Your task to perform on an android device: turn off javascript in the chrome app Image 0: 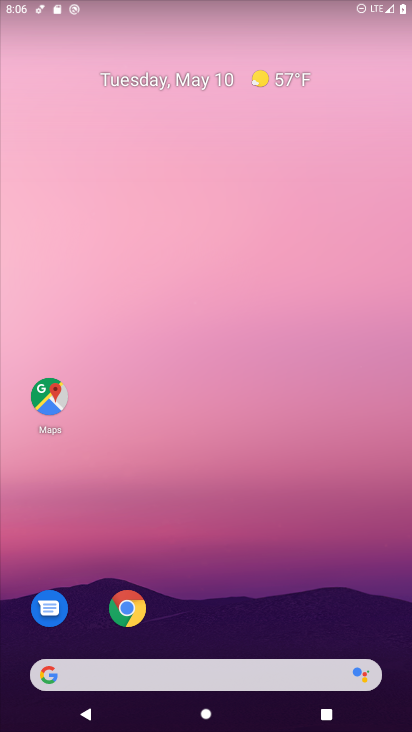
Step 0: drag from (352, 626) to (217, 33)
Your task to perform on an android device: turn off javascript in the chrome app Image 1: 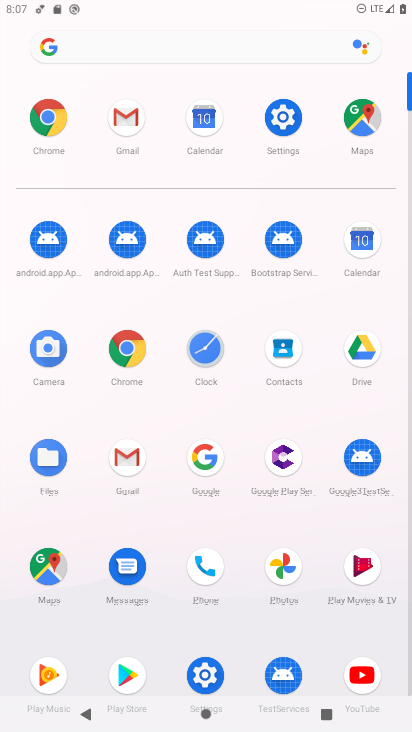
Step 1: click (117, 349)
Your task to perform on an android device: turn off javascript in the chrome app Image 2: 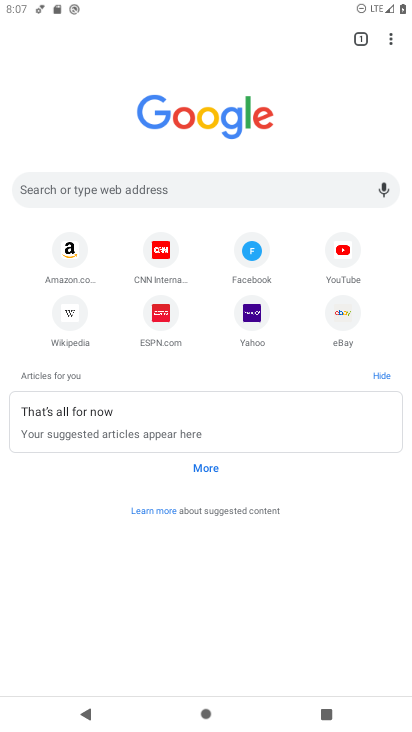
Step 2: click (391, 39)
Your task to perform on an android device: turn off javascript in the chrome app Image 3: 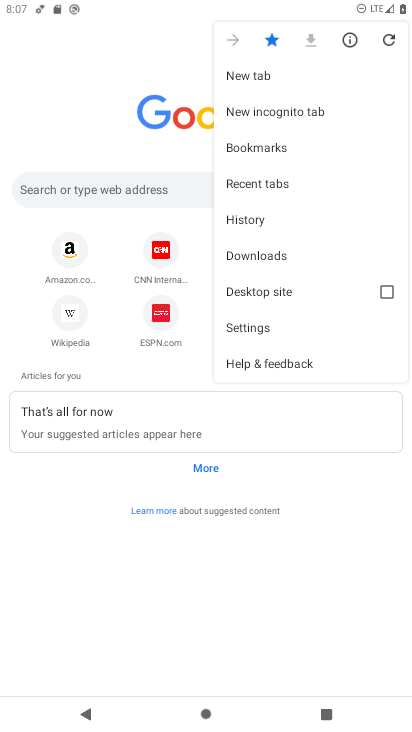
Step 3: click (277, 334)
Your task to perform on an android device: turn off javascript in the chrome app Image 4: 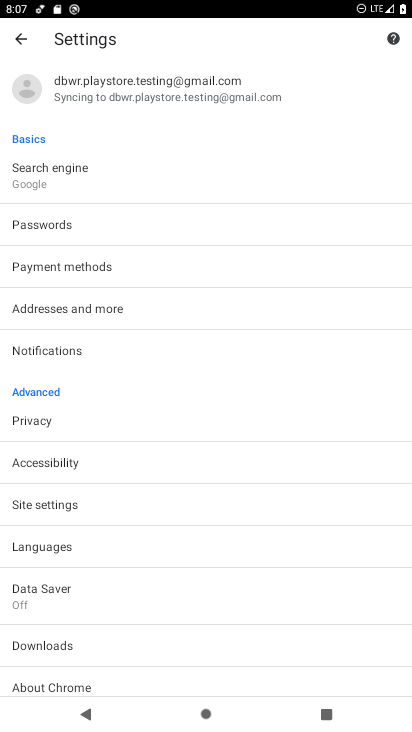
Step 4: click (69, 507)
Your task to perform on an android device: turn off javascript in the chrome app Image 5: 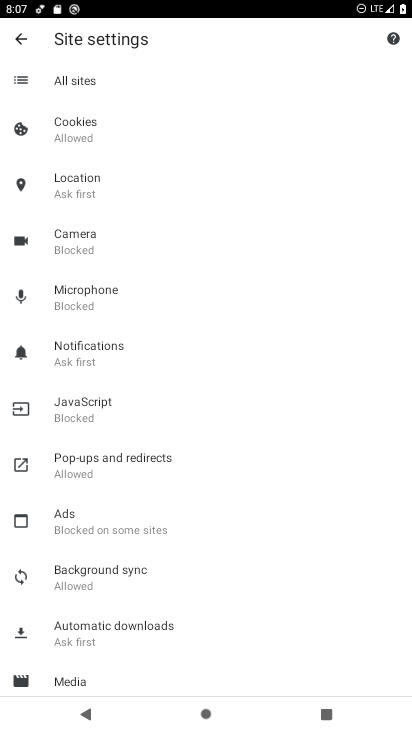
Step 5: click (110, 412)
Your task to perform on an android device: turn off javascript in the chrome app Image 6: 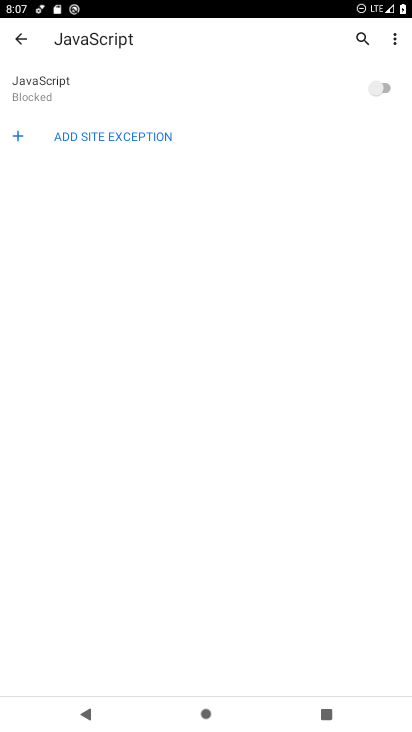
Step 6: task complete